Your task to perform on an android device: stop showing notifications on the lock screen Image 0: 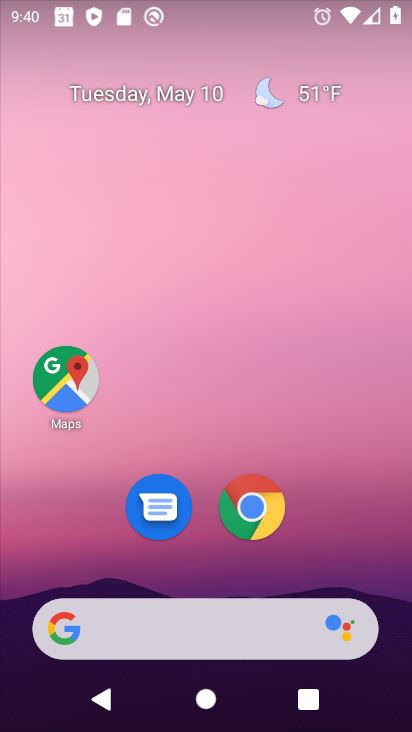
Step 0: drag from (209, 587) to (307, 79)
Your task to perform on an android device: stop showing notifications on the lock screen Image 1: 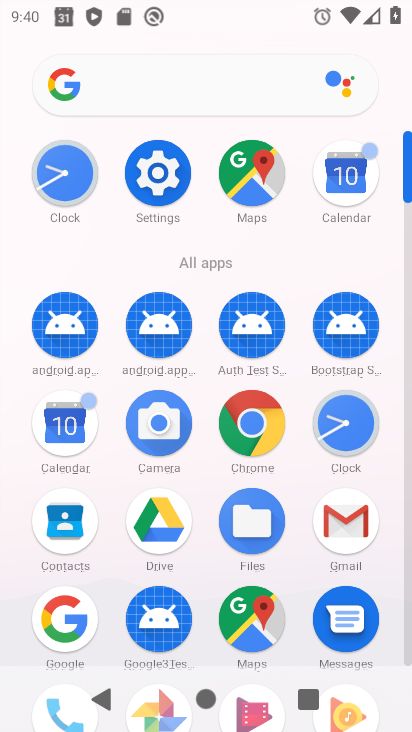
Step 1: click (155, 161)
Your task to perform on an android device: stop showing notifications on the lock screen Image 2: 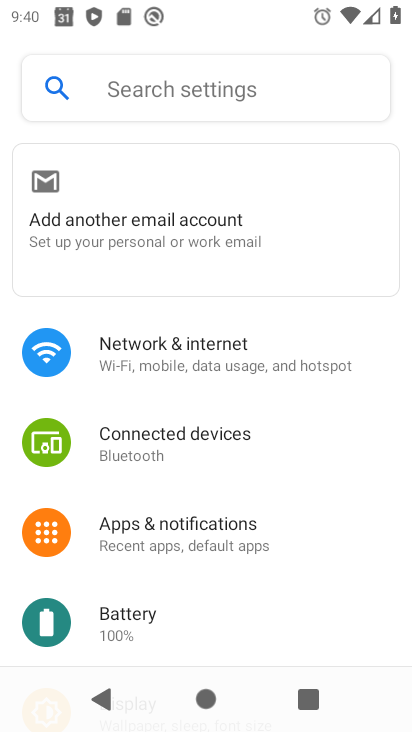
Step 2: click (179, 533)
Your task to perform on an android device: stop showing notifications on the lock screen Image 3: 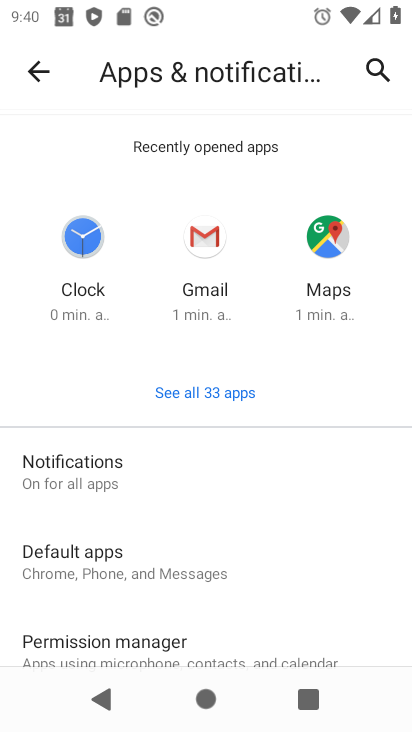
Step 3: drag from (159, 612) to (267, 151)
Your task to perform on an android device: stop showing notifications on the lock screen Image 4: 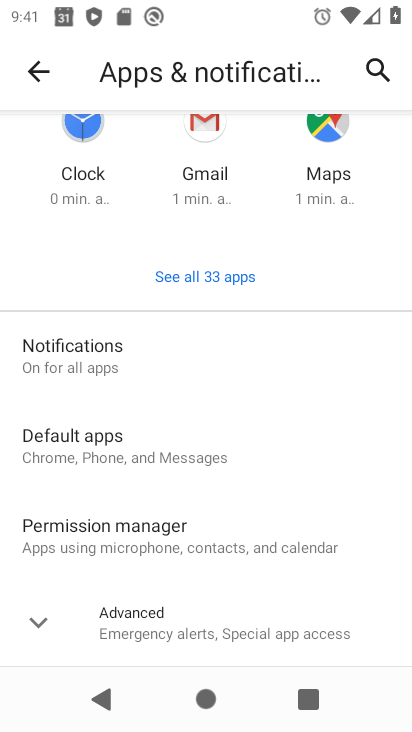
Step 4: click (207, 351)
Your task to perform on an android device: stop showing notifications on the lock screen Image 5: 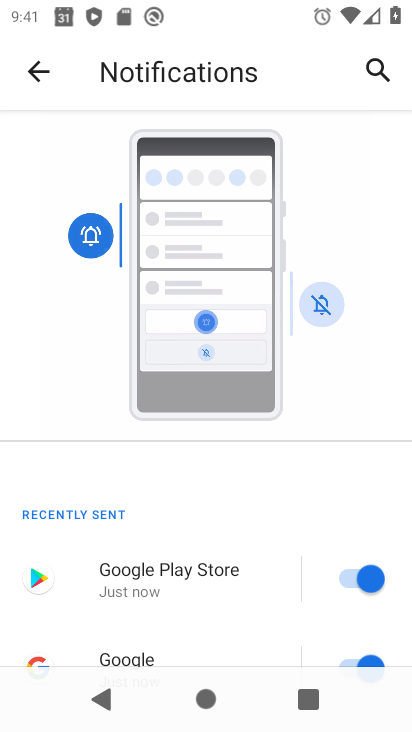
Step 5: drag from (164, 579) to (159, 131)
Your task to perform on an android device: stop showing notifications on the lock screen Image 6: 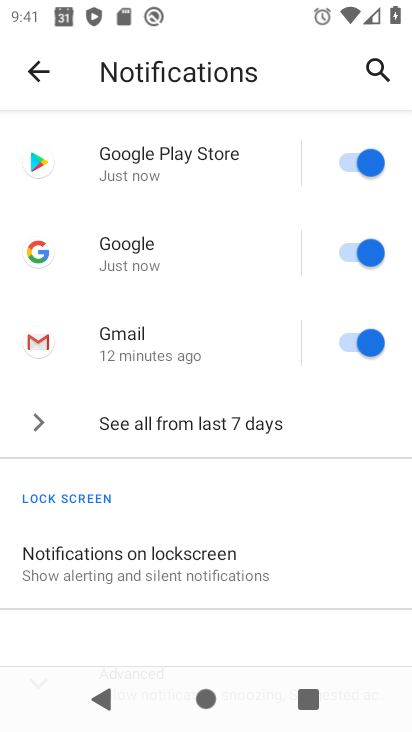
Step 6: click (143, 501)
Your task to perform on an android device: stop showing notifications on the lock screen Image 7: 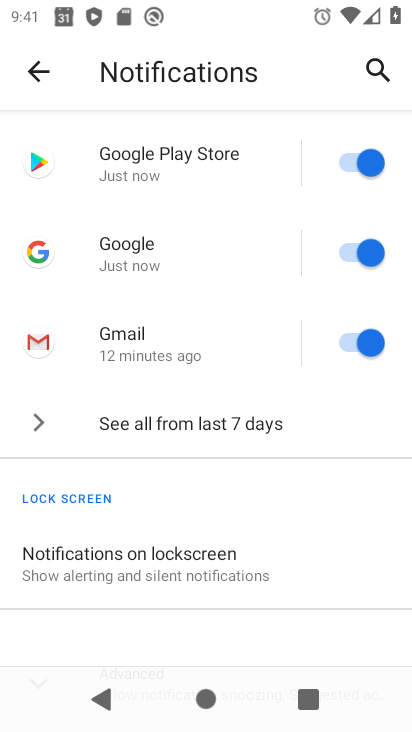
Step 7: click (190, 541)
Your task to perform on an android device: stop showing notifications on the lock screen Image 8: 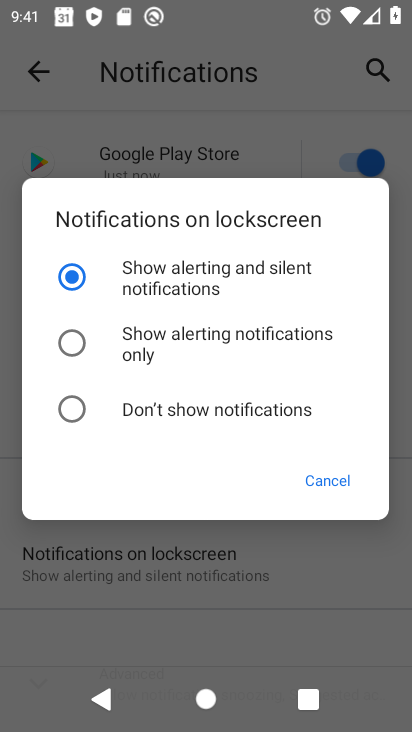
Step 8: click (156, 411)
Your task to perform on an android device: stop showing notifications on the lock screen Image 9: 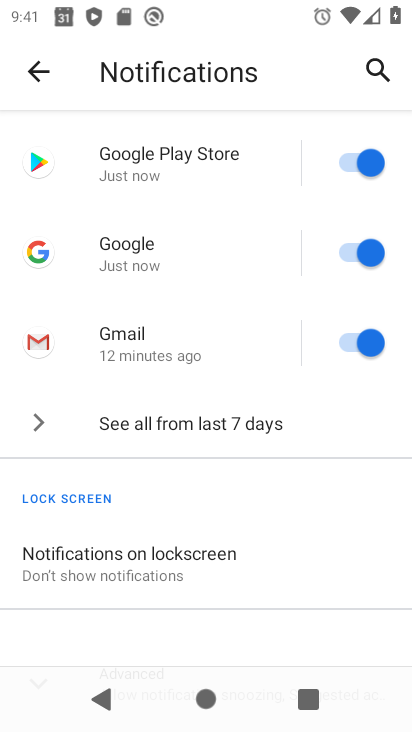
Step 9: task complete